Your task to perform on an android device: turn off javascript in the chrome app Image 0: 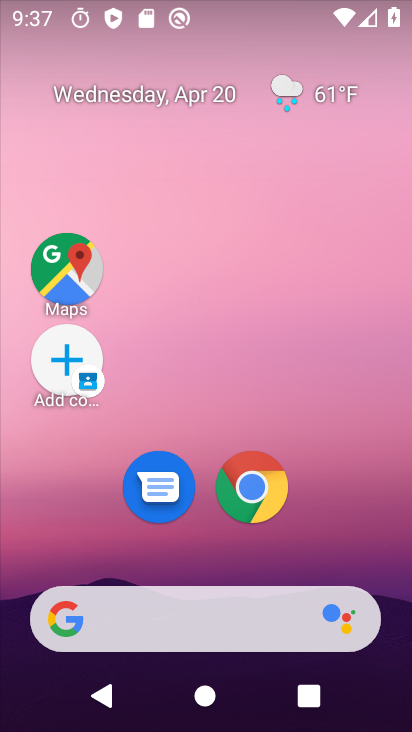
Step 0: click (260, 472)
Your task to perform on an android device: turn off javascript in the chrome app Image 1: 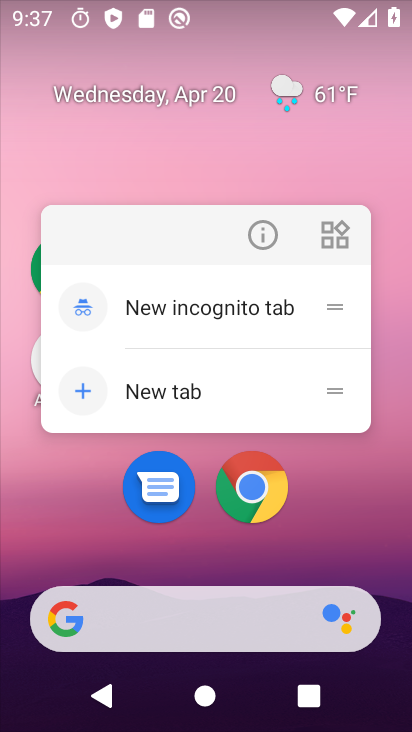
Step 1: click (260, 475)
Your task to perform on an android device: turn off javascript in the chrome app Image 2: 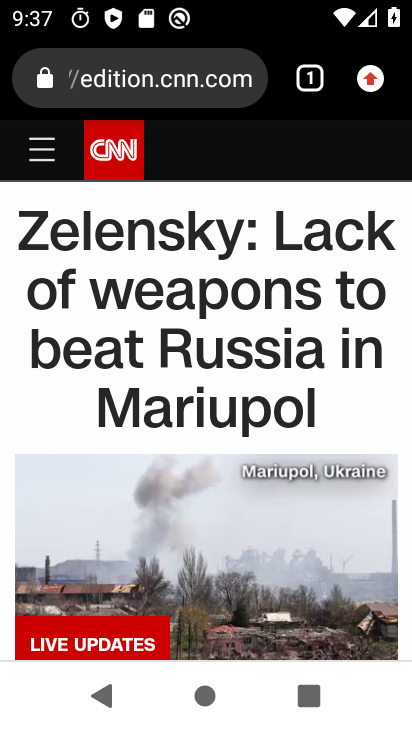
Step 2: click (368, 94)
Your task to perform on an android device: turn off javascript in the chrome app Image 3: 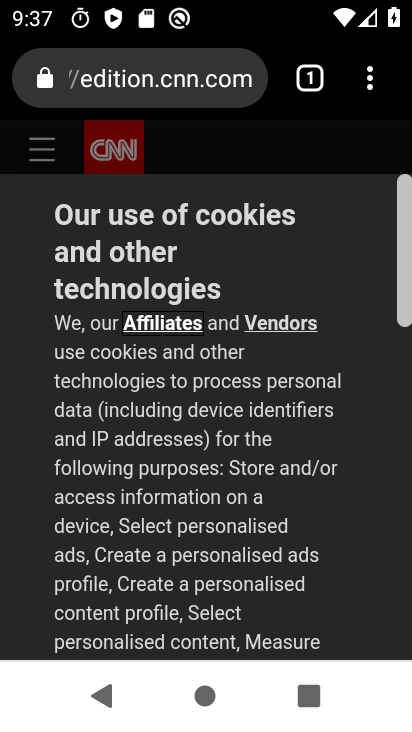
Step 3: click (360, 91)
Your task to perform on an android device: turn off javascript in the chrome app Image 4: 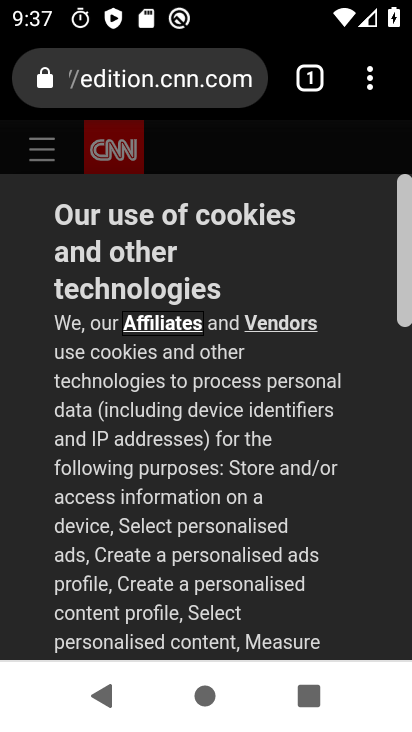
Step 4: click (368, 67)
Your task to perform on an android device: turn off javascript in the chrome app Image 5: 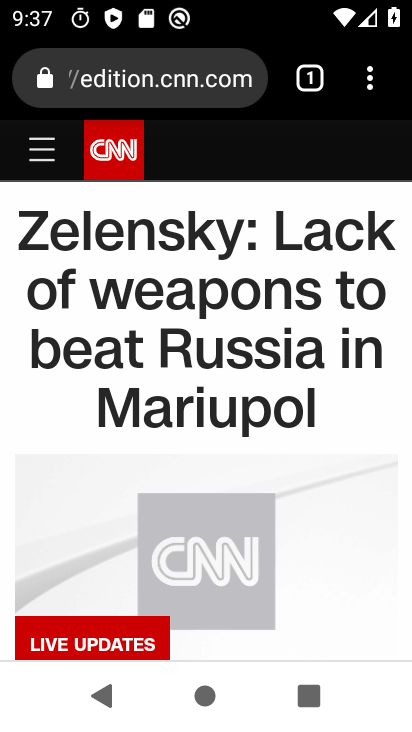
Step 5: click (364, 73)
Your task to perform on an android device: turn off javascript in the chrome app Image 6: 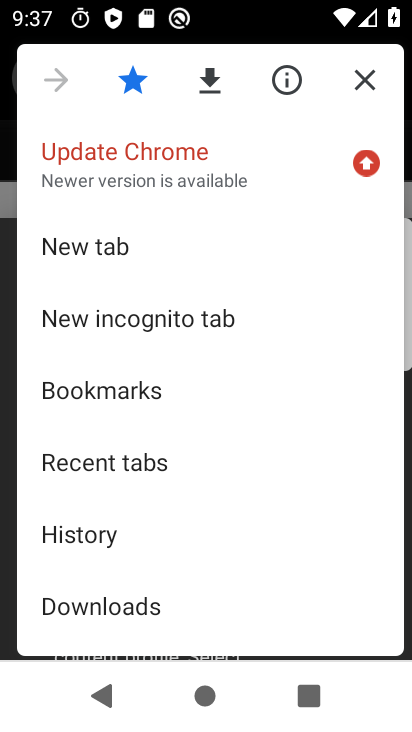
Step 6: drag from (207, 546) to (180, 396)
Your task to perform on an android device: turn off javascript in the chrome app Image 7: 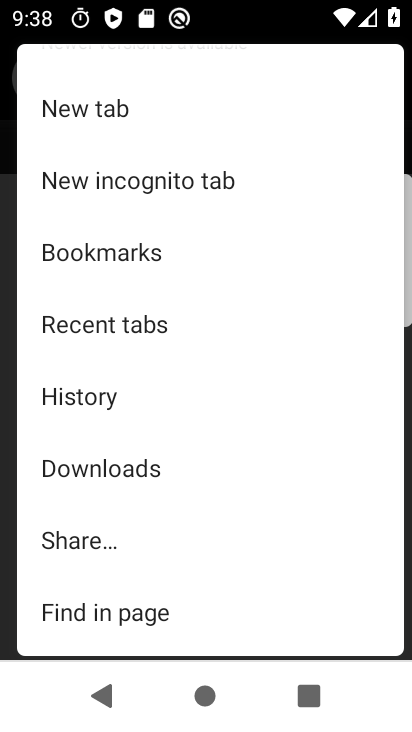
Step 7: drag from (178, 563) to (172, 481)
Your task to perform on an android device: turn off javascript in the chrome app Image 8: 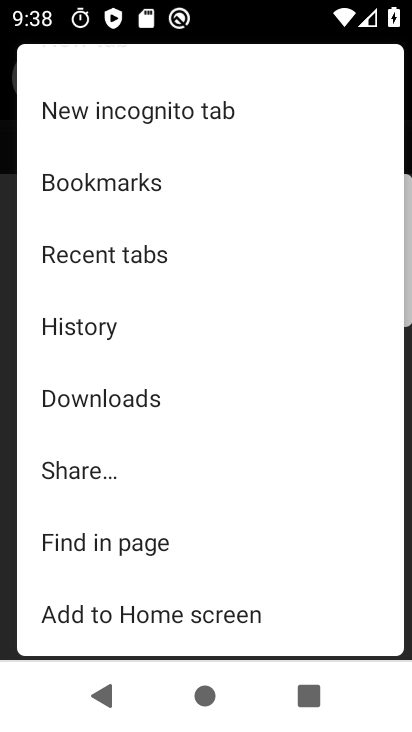
Step 8: drag from (144, 556) to (140, 479)
Your task to perform on an android device: turn off javascript in the chrome app Image 9: 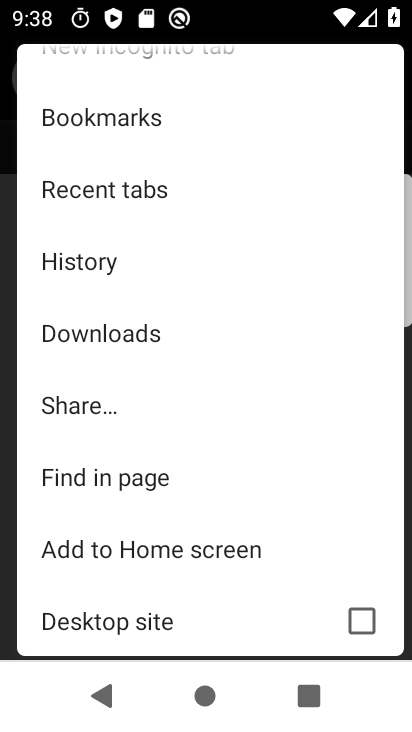
Step 9: drag from (132, 563) to (127, 472)
Your task to perform on an android device: turn off javascript in the chrome app Image 10: 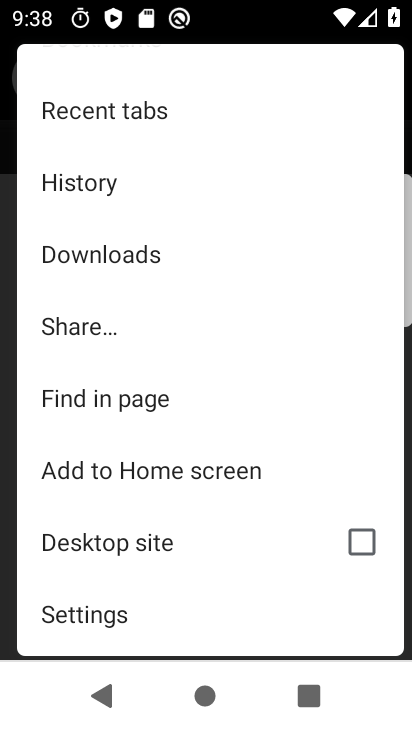
Step 10: drag from (135, 529) to (137, 459)
Your task to perform on an android device: turn off javascript in the chrome app Image 11: 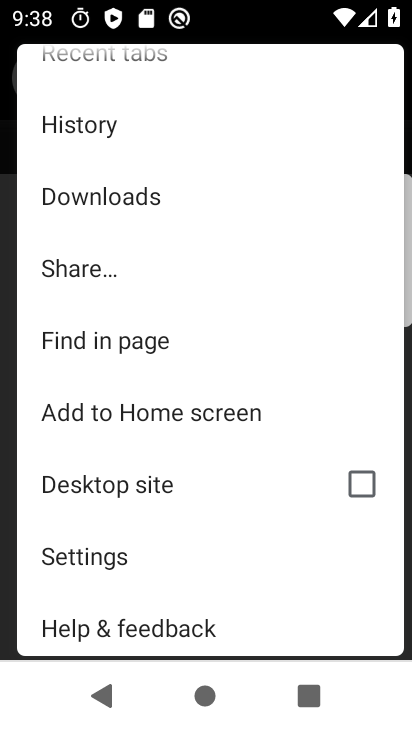
Step 11: click (158, 557)
Your task to perform on an android device: turn off javascript in the chrome app Image 12: 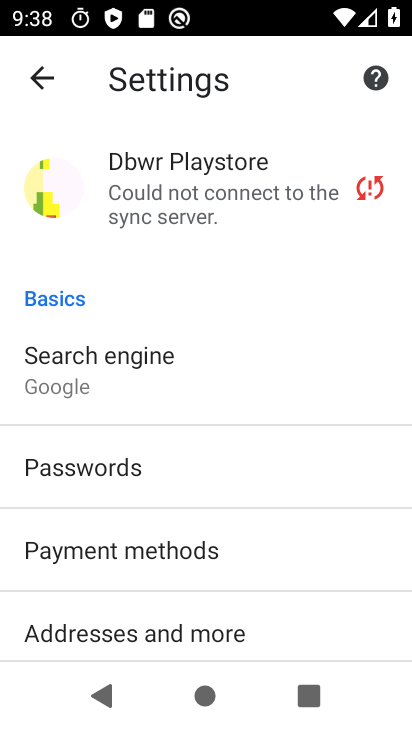
Step 12: drag from (171, 578) to (169, 498)
Your task to perform on an android device: turn off javascript in the chrome app Image 13: 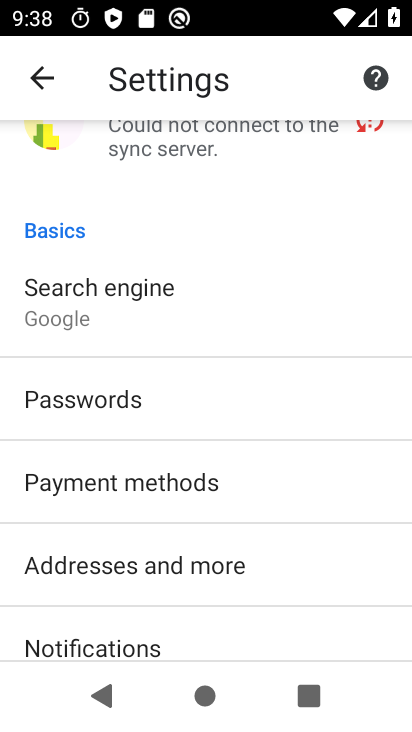
Step 13: drag from (154, 600) to (152, 519)
Your task to perform on an android device: turn off javascript in the chrome app Image 14: 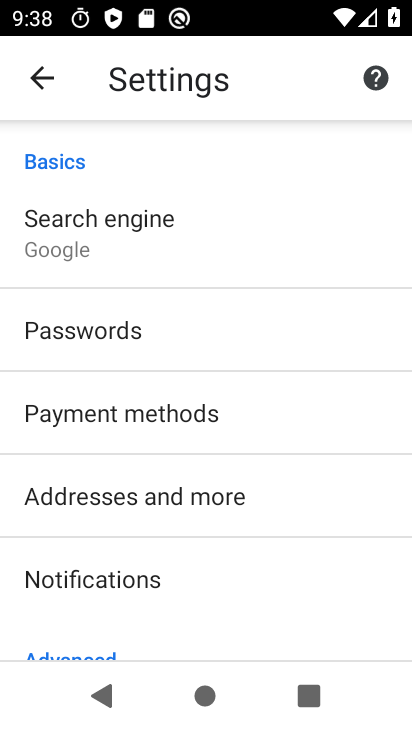
Step 14: drag from (148, 556) to (133, 455)
Your task to perform on an android device: turn off javascript in the chrome app Image 15: 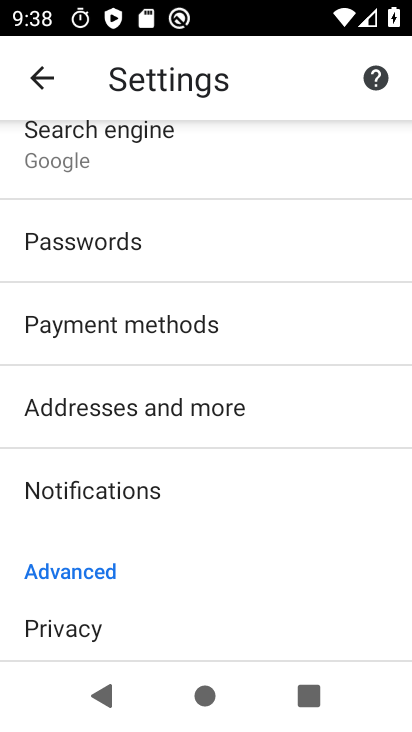
Step 15: drag from (137, 551) to (132, 470)
Your task to perform on an android device: turn off javascript in the chrome app Image 16: 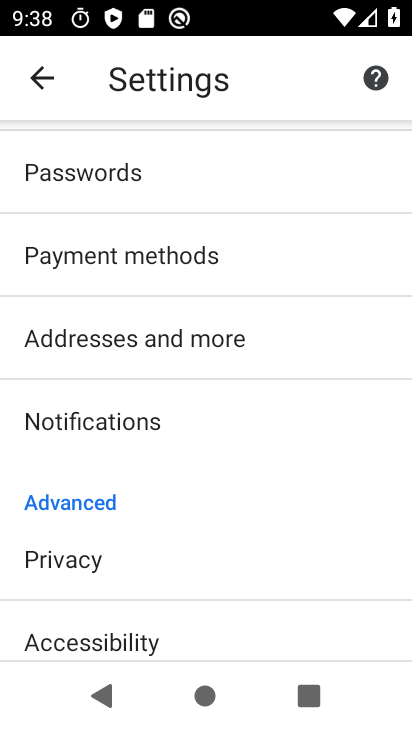
Step 16: drag from (124, 545) to (121, 478)
Your task to perform on an android device: turn off javascript in the chrome app Image 17: 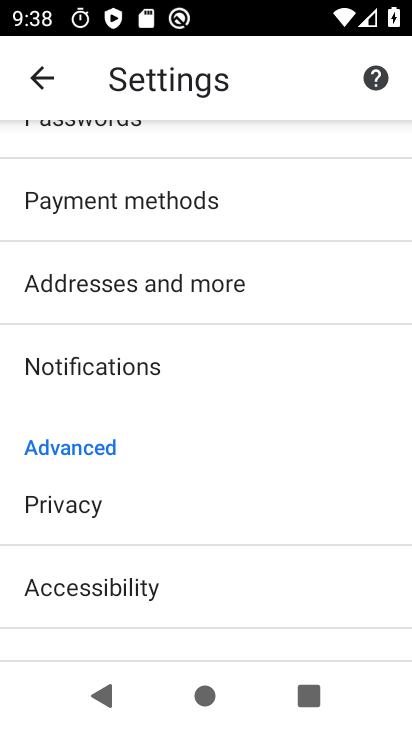
Step 17: drag from (115, 528) to (111, 468)
Your task to perform on an android device: turn off javascript in the chrome app Image 18: 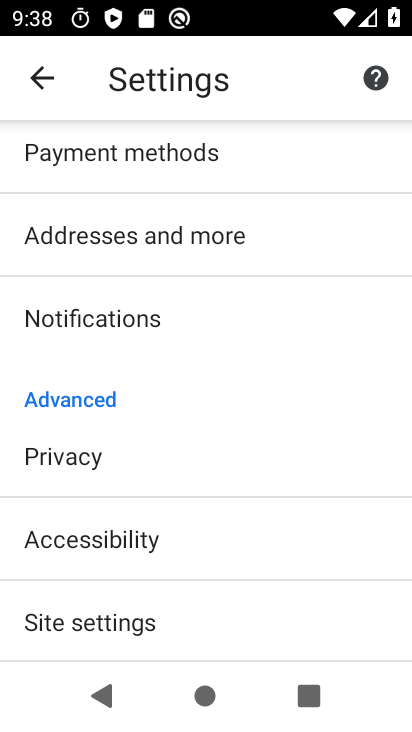
Step 18: drag from (111, 565) to (101, 459)
Your task to perform on an android device: turn off javascript in the chrome app Image 19: 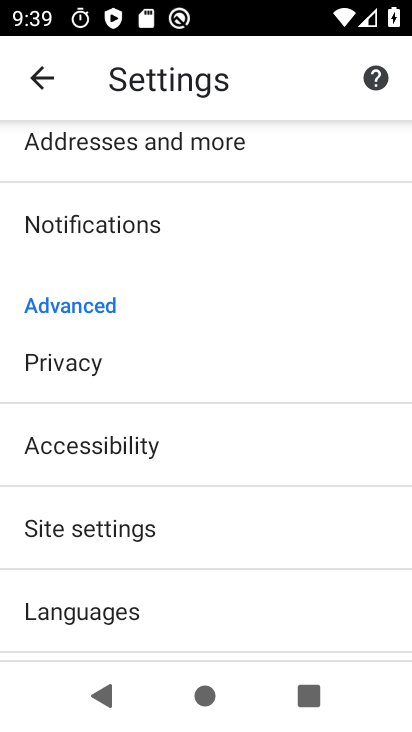
Step 19: click (128, 549)
Your task to perform on an android device: turn off javascript in the chrome app Image 20: 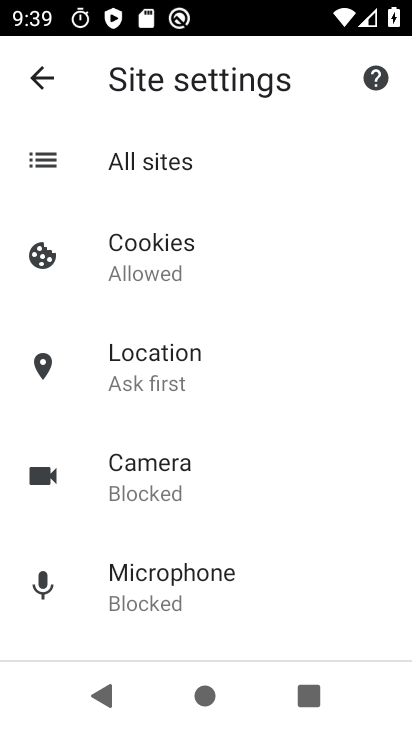
Step 20: drag from (140, 593) to (138, 497)
Your task to perform on an android device: turn off javascript in the chrome app Image 21: 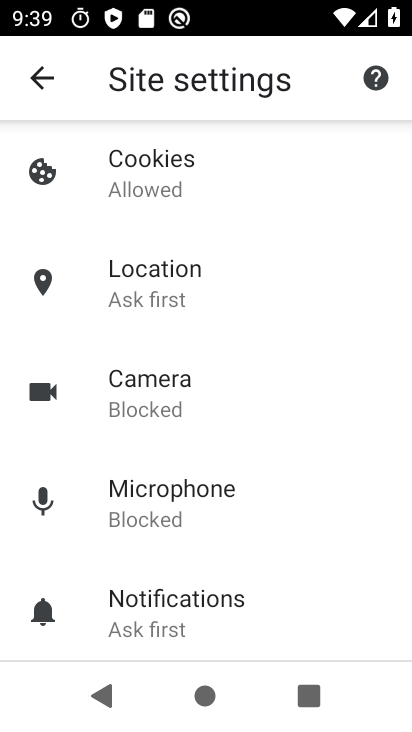
Step 21: drag from (150, 600) to (134, 515)
Your task to perform on an android device: turn off javascript in the chrome app Image 22: 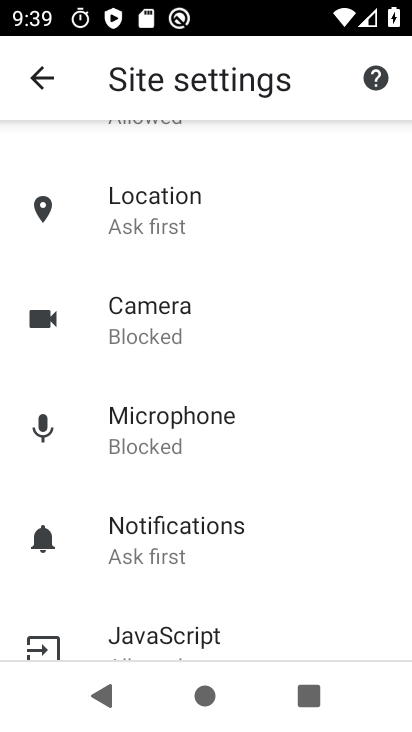
Step 22: drag from (133, 567) to (122, 489)
Your task to perform on an android device: turn off javascript in the chrome app Image 23: 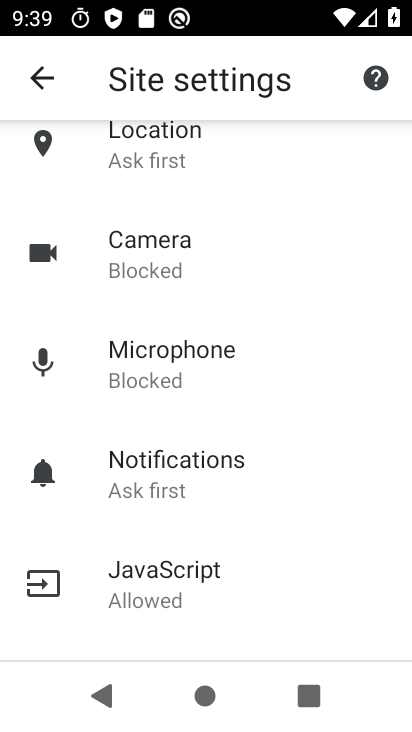
Step 23: click (126, 575)
Your task to perform on an android device: turn off javascript in the chrome app Image 24: 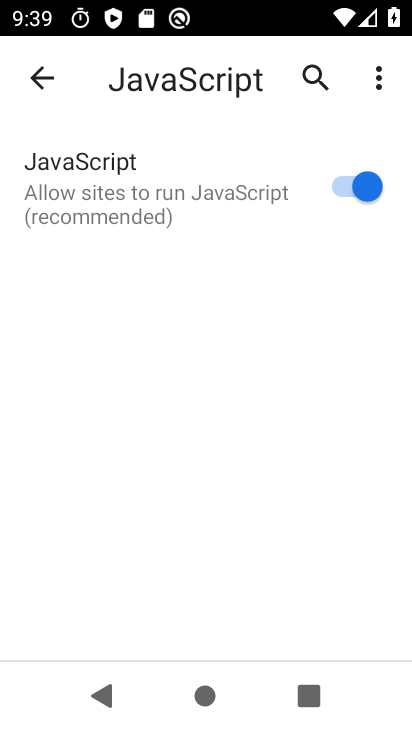
Step 24: click (315, 182)
Your task to perform on an android device: turn off javascript in the chrome app Image 25: 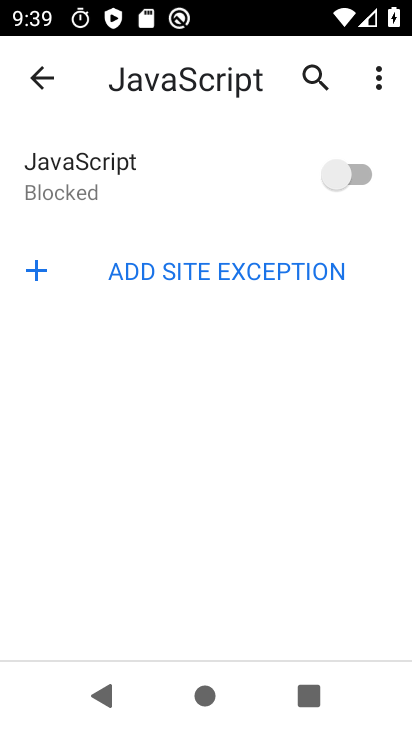
Step 25: task complete